Your task to perform on an android device: turn off data saver in the chrome app Image 0: 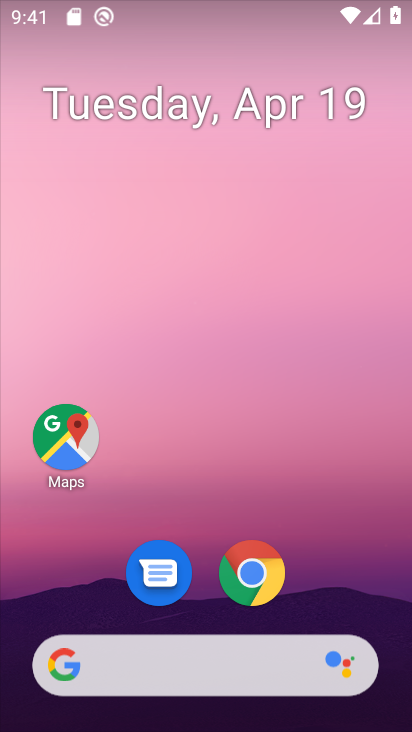
Step 0: drag from (298, 514) to (291, 16)
Your task to perform on an android device: turn off data saver in the chrome app Image 1: 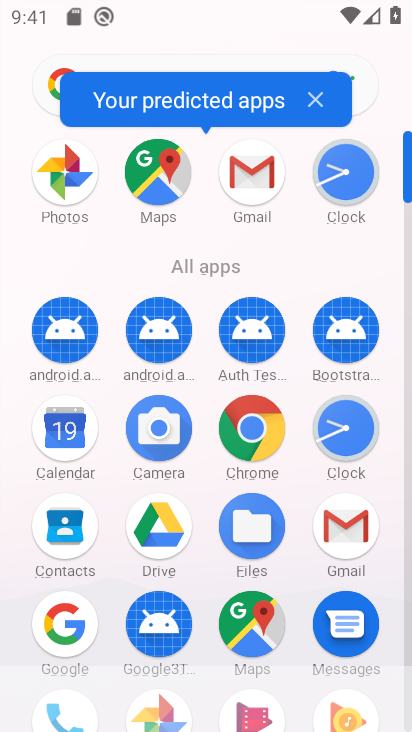
Step 1: click (250, 425)
Your task to perform on an android device: turn off data saver in the chrome app Image 2: 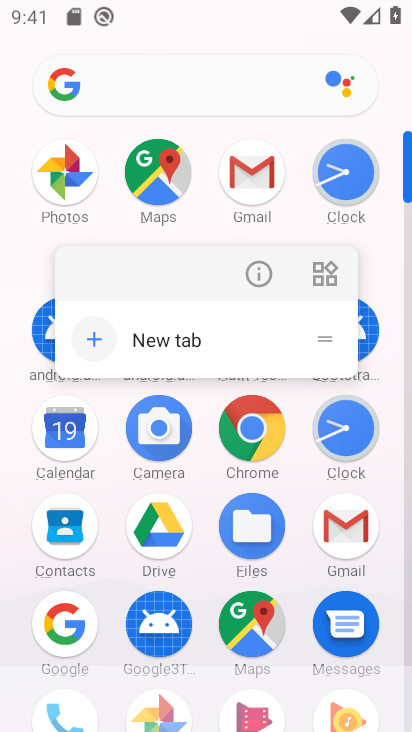
Step 2: click (251, 423)
Your task to perform on an android device: turn off data saver in the chrome app Image 3: 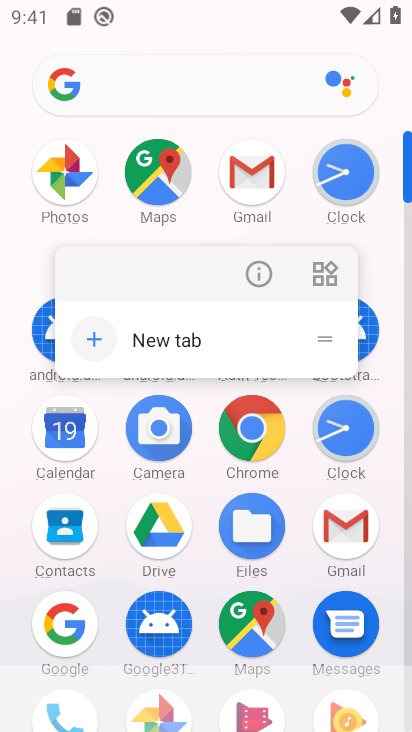
Step 3: click (250, 423)
Your task to perform on an android device: turn off data saver in the chrome app Image 4: 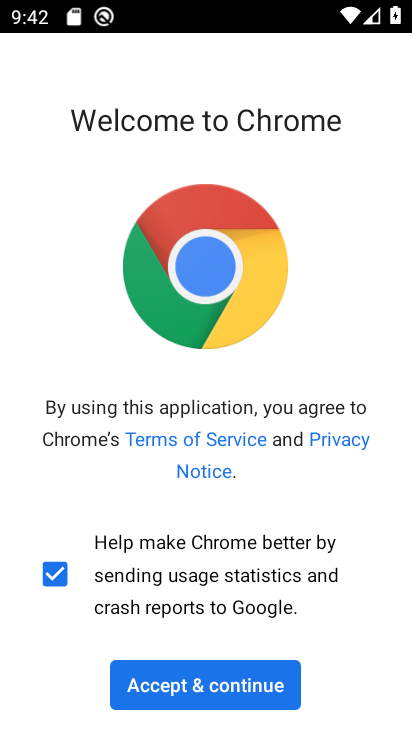
Step 4: click (202, 685)
Your task to perform on an android device: turn off data saver in the chrome app Image 5: 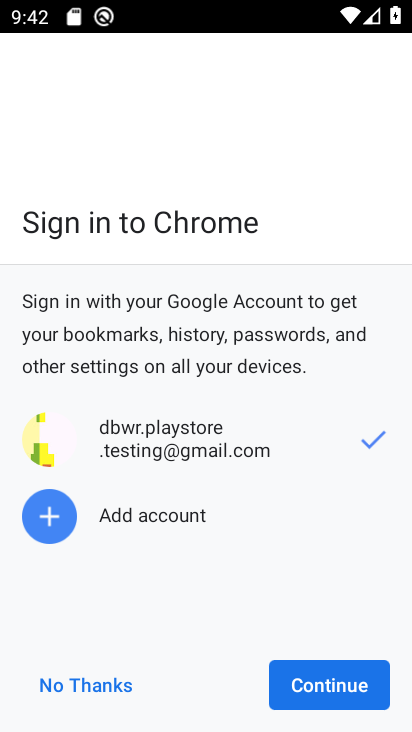
Step 5: click (329, 687)
Your task to perform on an android device: turn off data saver in the chrome app Image 6: 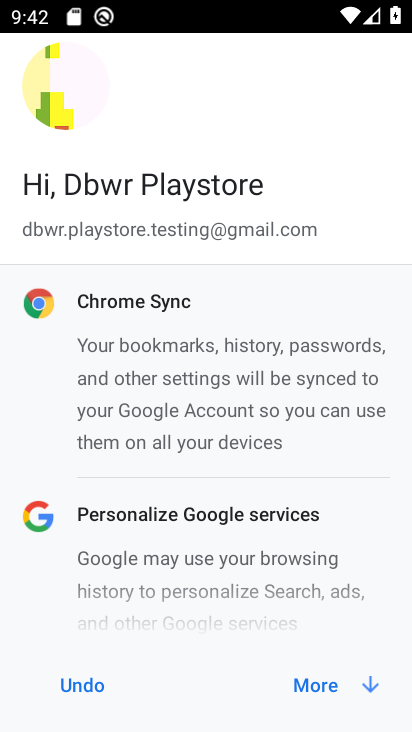
Step 6: click (329, 687)
Your task to perform on an android device: turn off data saver in the chrome app Image 7: 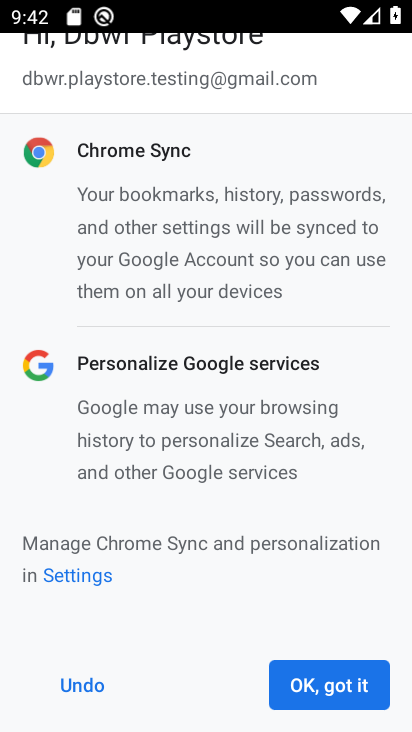
Step 7: click (333, 678)
Your task to perform on an android device: turn off data saver in the chrome app Image 8: 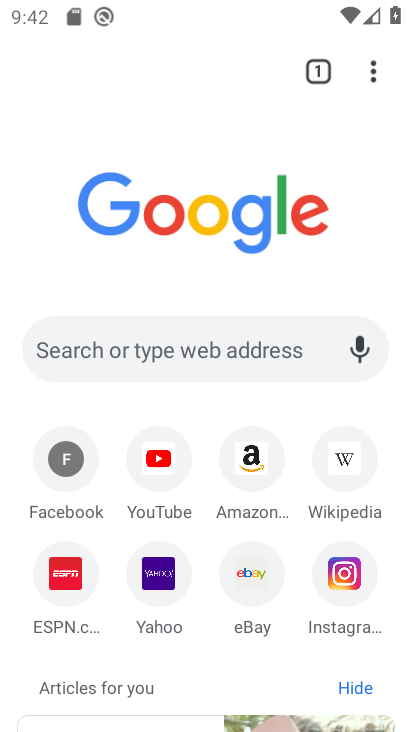
Step 8: click (369, 64)
Your task to perform on an android device: turn off data saver in the chrome app Image 9: 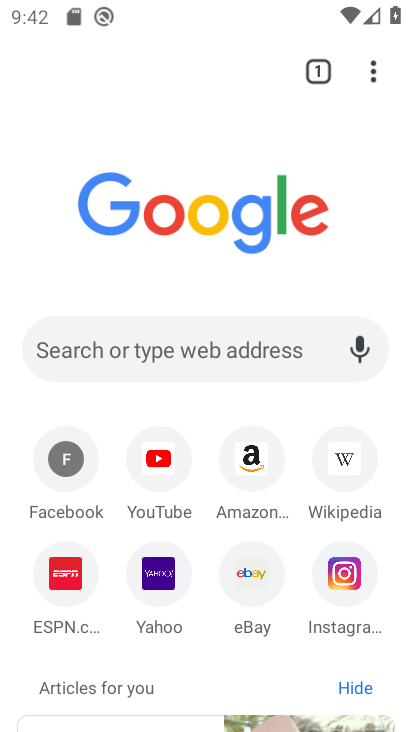
Step 9: click (369, 69)
Your task to perform on an android device: turn off data saver in the chrome app Image 10: 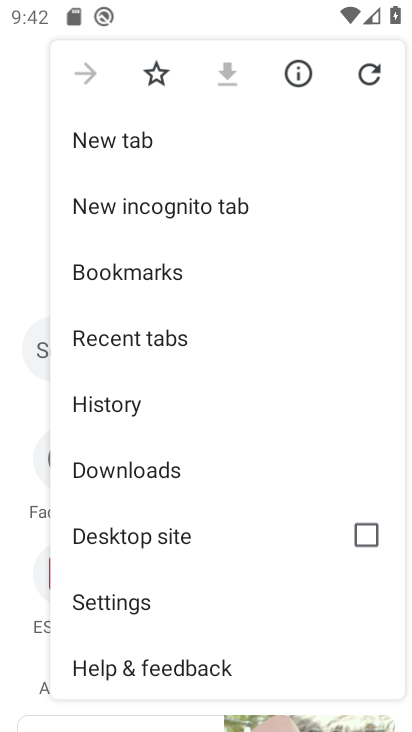
Step 10: drag from (203, 612) to (241, 267)
Your task to perform on an android device: turn off data saver in the chrome app Image 11: 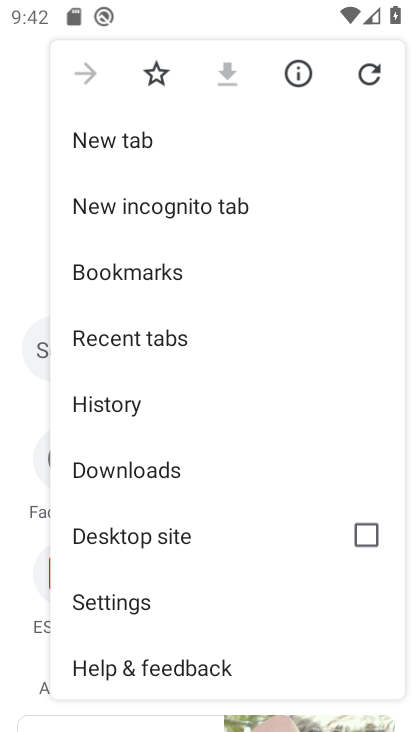
Step 11: click (163, 595)
Your task to perform on an android device: turn off data saver in the chrome app Image 12: 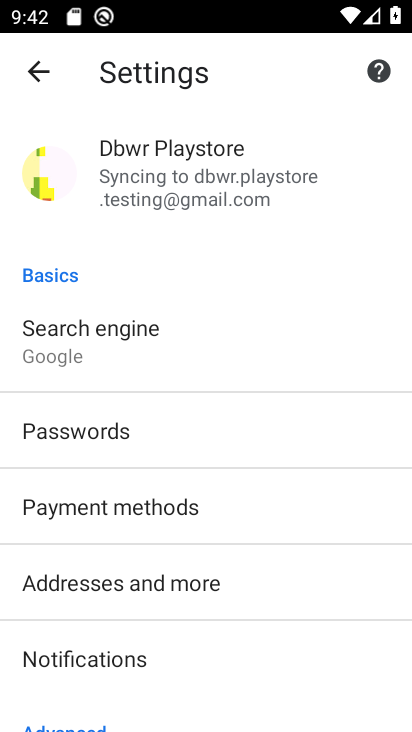
Step 12: drag from (228, 642) to (279, 127)
Your task to perform on an android device: turn off data saver in the chrome app Image 13: 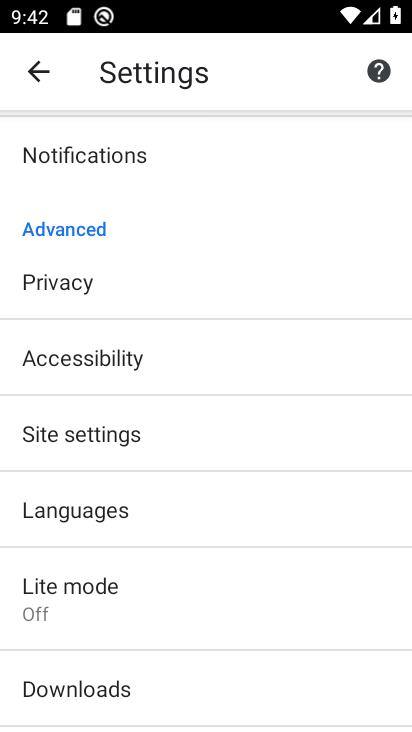
Step 13: click (111, 611)
Your task to perform on an android device: turn off data saver in the chrome app Image 14: 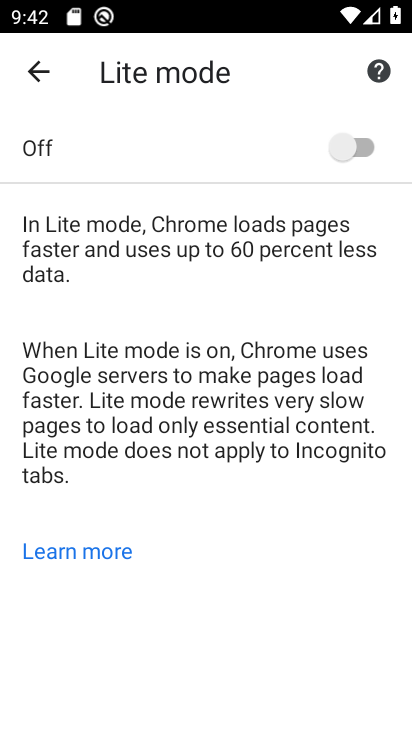
Step 14: task complete